Your task to perform on an android device: toggle notification dots Image 0: 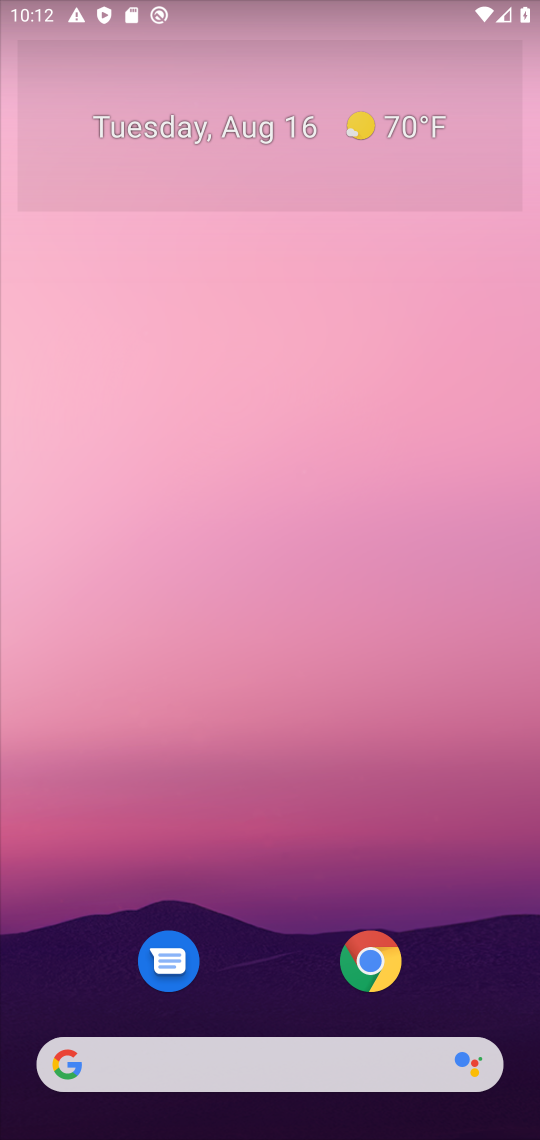
Step 0: drag from (355, 318) to (362, 76)
Your task to perform on an android device: toggle notification dots Image 1: 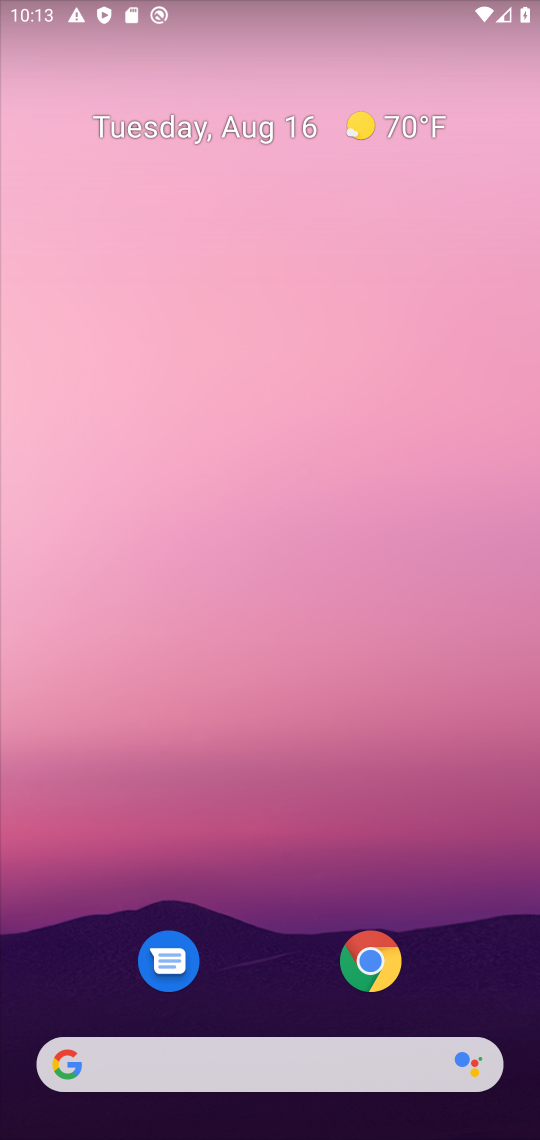
Step 1: task complete